Your task to perform on an android device: Open Maps and search for coffee Image 0: 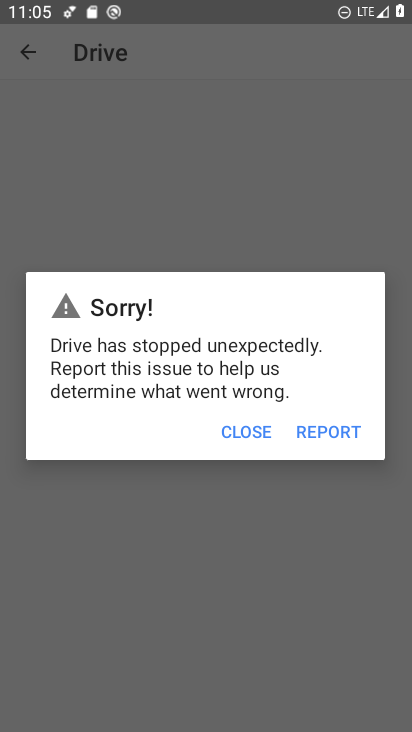
Step 0: press home button
Your task to perform on an android device: Open Maps and search for coffee Image 1: 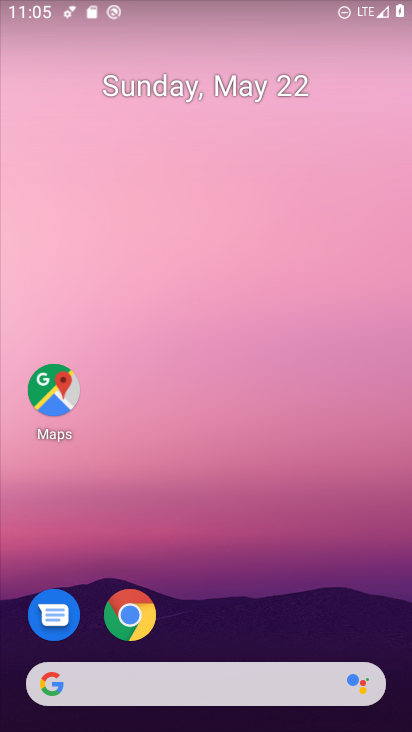
Step 1: click (56, 400)
Your task to perform on an android device: Open Maps and search for coffee Image 2: 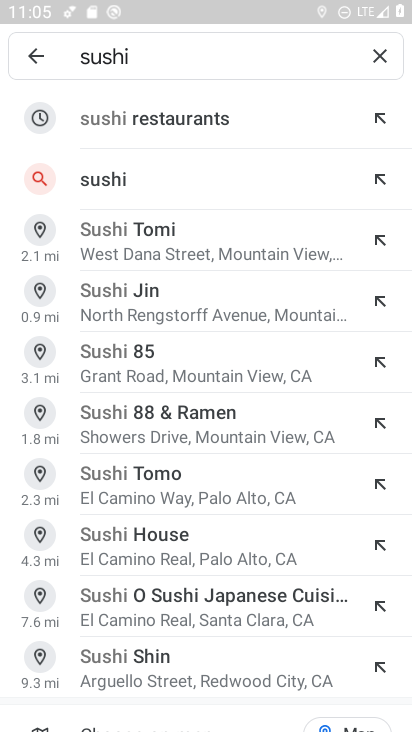
Step 2: click (312, 58)
Your task to perform on an android device: Open Maps and search for coffee Image 3: 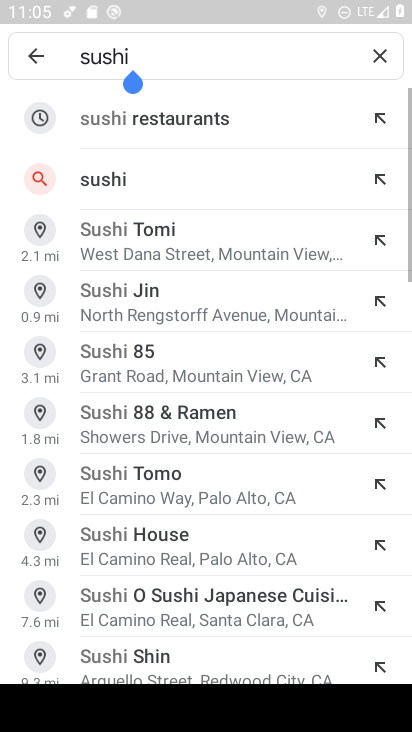
Step 3: click (382, 51)
Your task to perform on an android device: Open Maps and search for coffee Image 4: 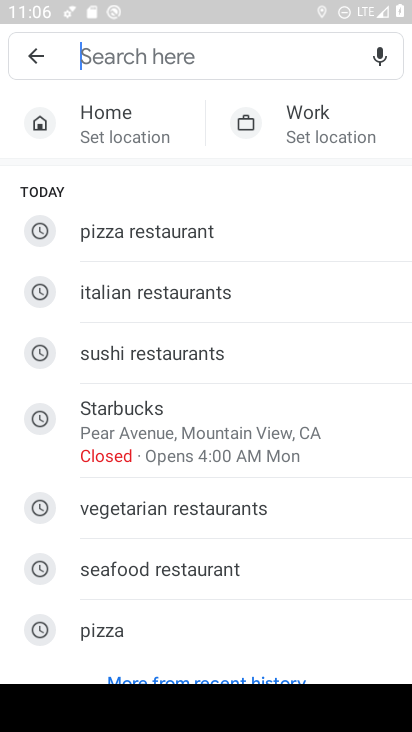
Step 4: type "coffee"
Your task to perform on an android device: Open Maps and search for coffee Image 5: 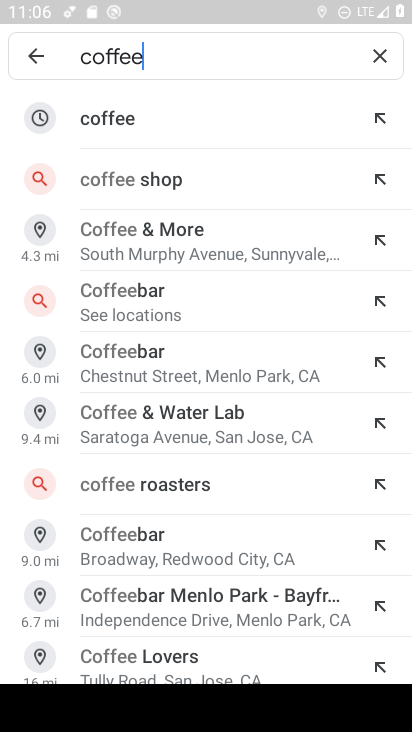
Step 5: click (131, 111)
Your task to perform on an android device: Open Maps and search for coffee Image 6: 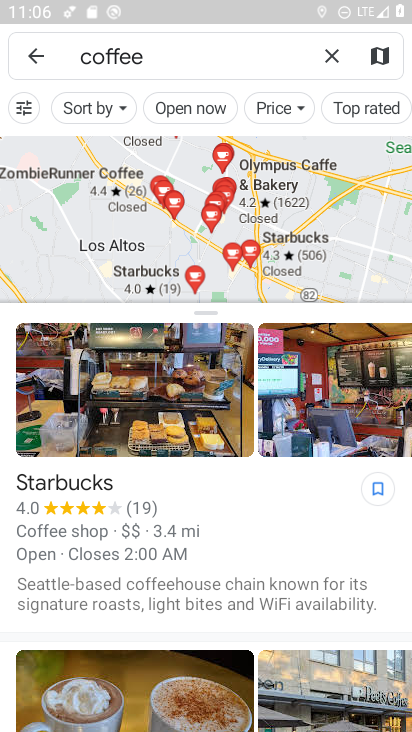
Step 6: task complete